Your task to perform on an android device: Play the last video I watched on Youtube Image 0: 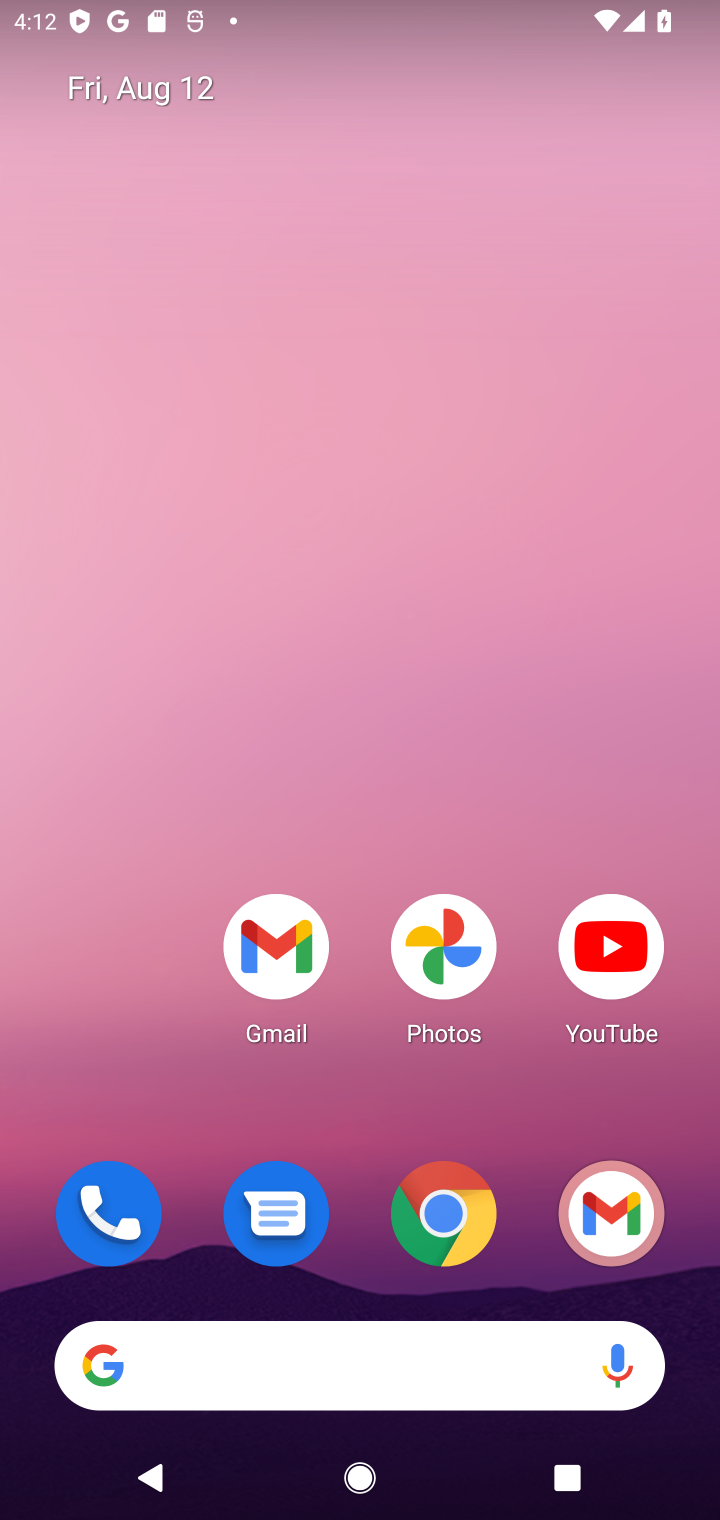
Step 0: drag from (543, 1104) to (633, 30)
Your task to perform on an android device: Play the last video I watched on Youtube Image 1: 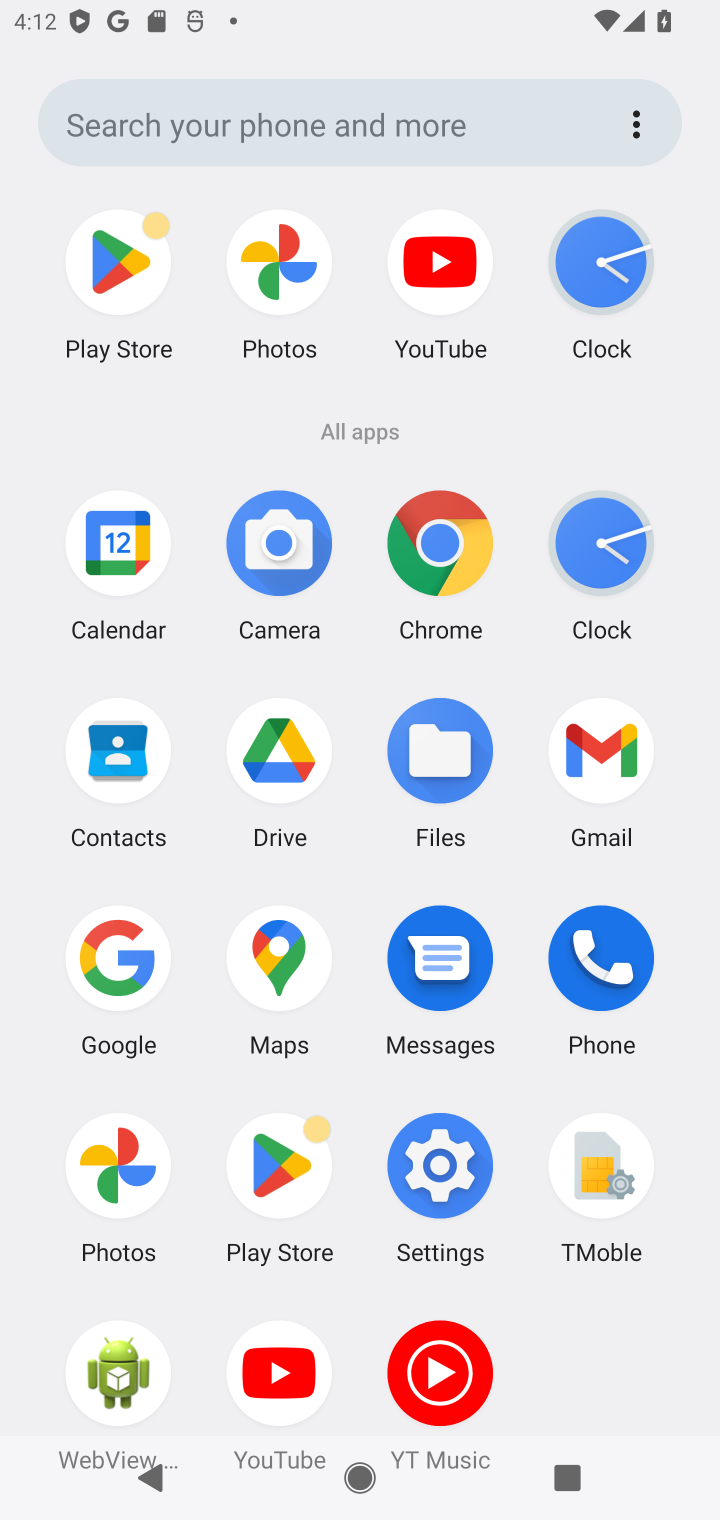
Step 1: click (288, 1367)
Your task to perform on an android device: Play the last video I watched on Youtube Image 2: 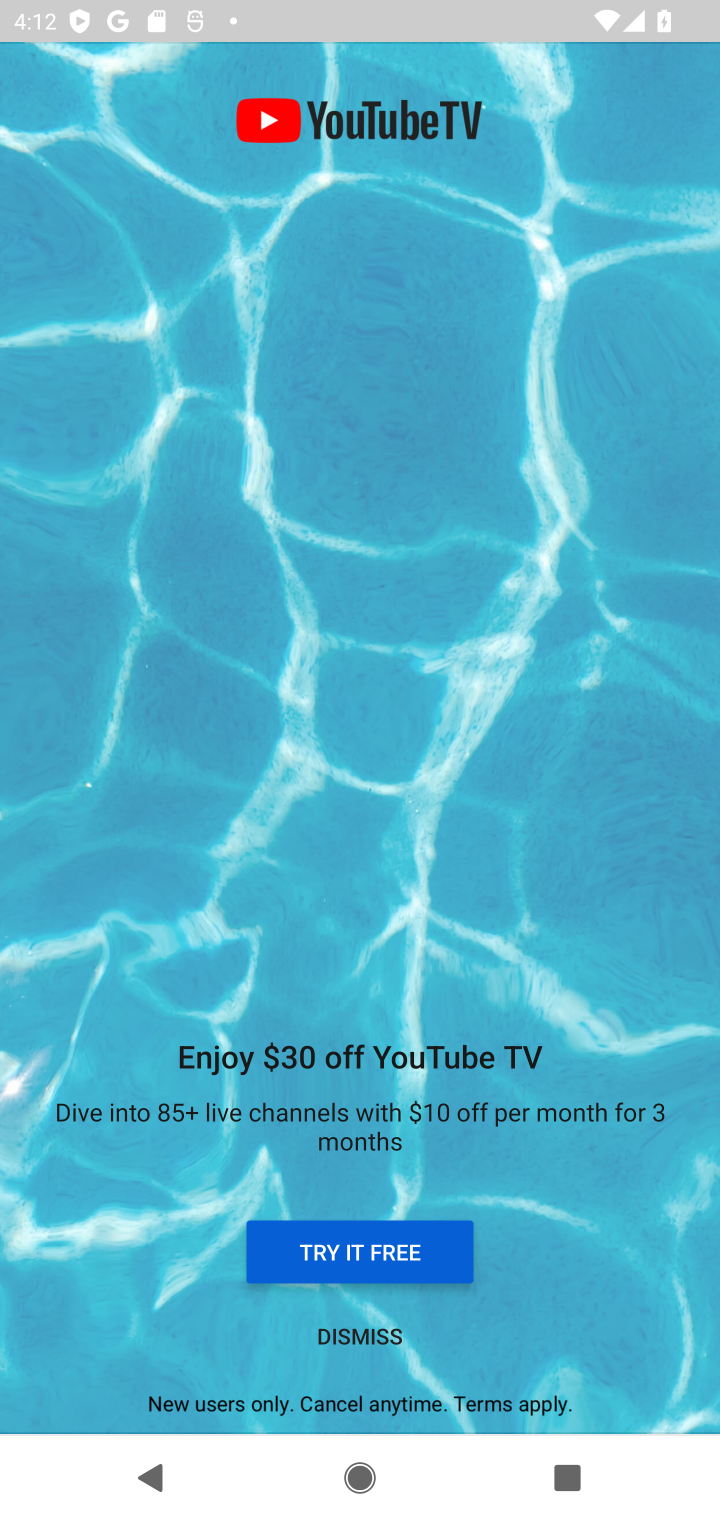
Step 2: click (372, 1330)
Your task to perform on an android device: Play the last video I watched on Youtube Image 3: 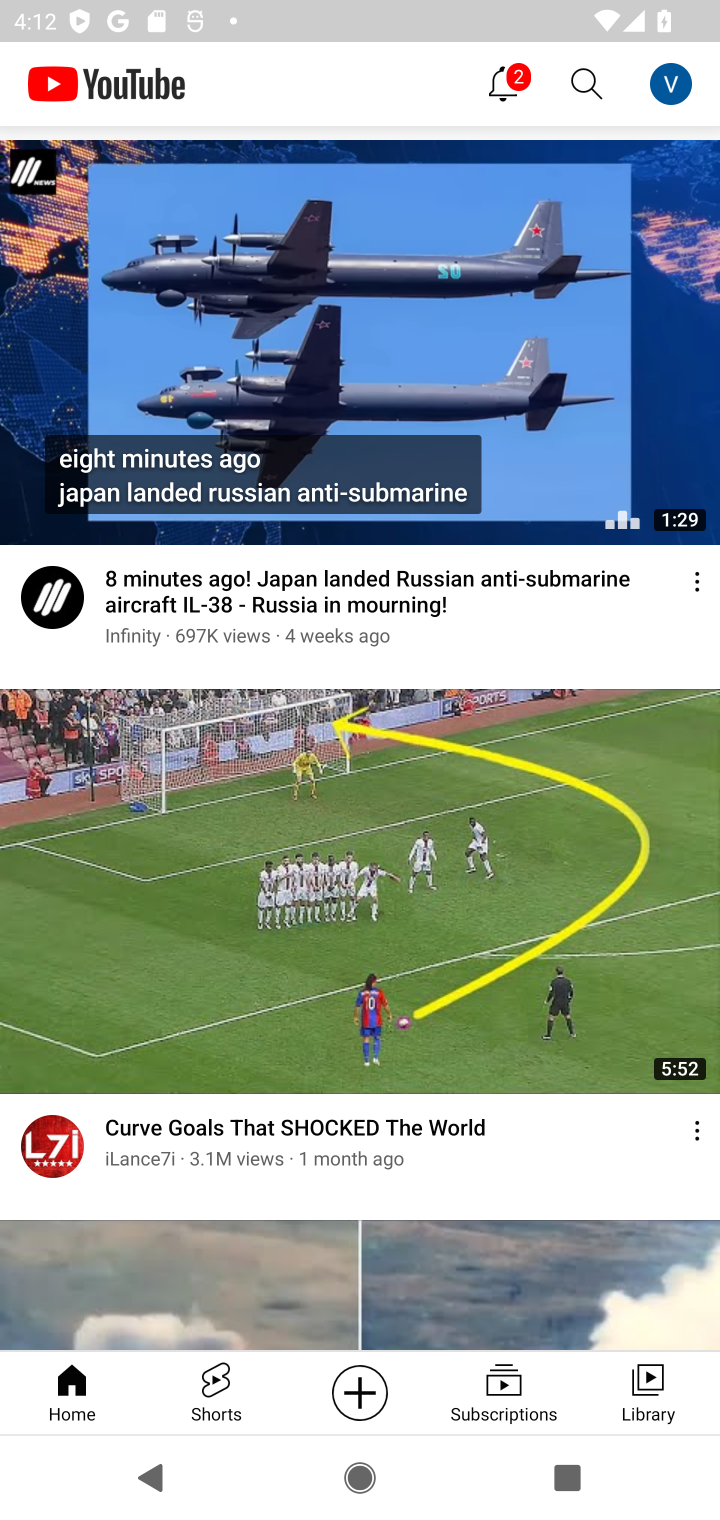
Step 3: click (670, 1378)
Your task to perform on an android device: Play the last video I watched on Youtube Image 4: 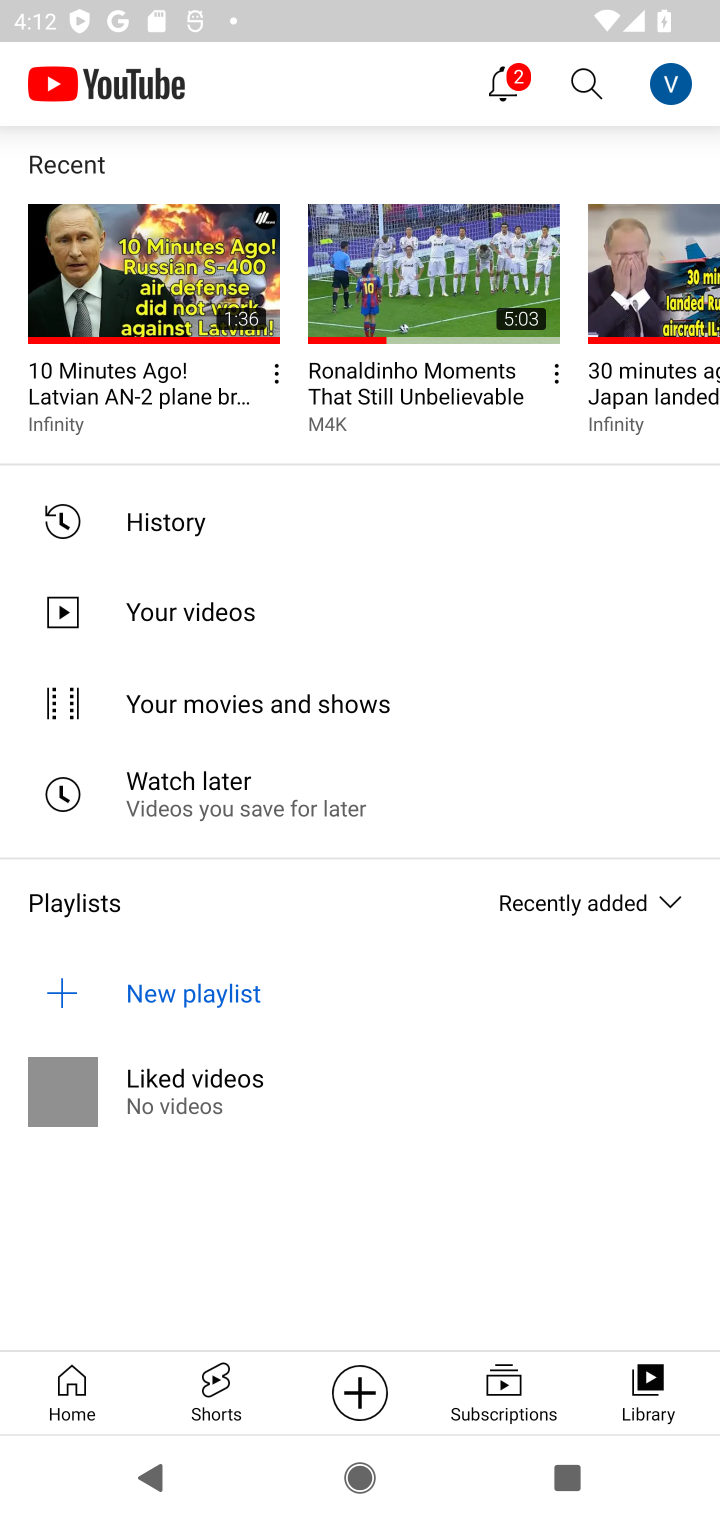
Step 4: click (166, 282)
Your task to perform on an android device: Play the last video I watched on Youtube Image 5: 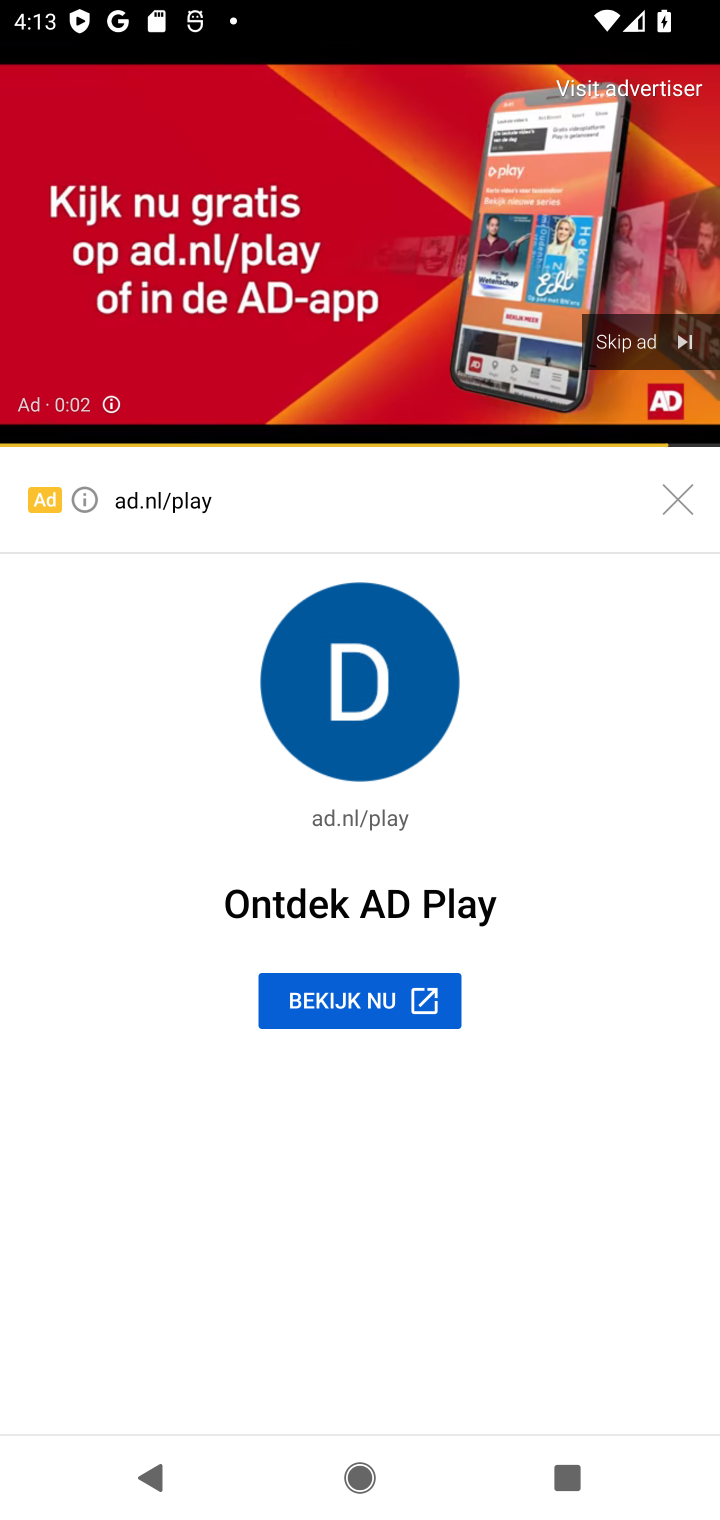
Step 5: click (614, 332)
Your task to perform on an android device: Play the last video I watched on Youtube Image 6: 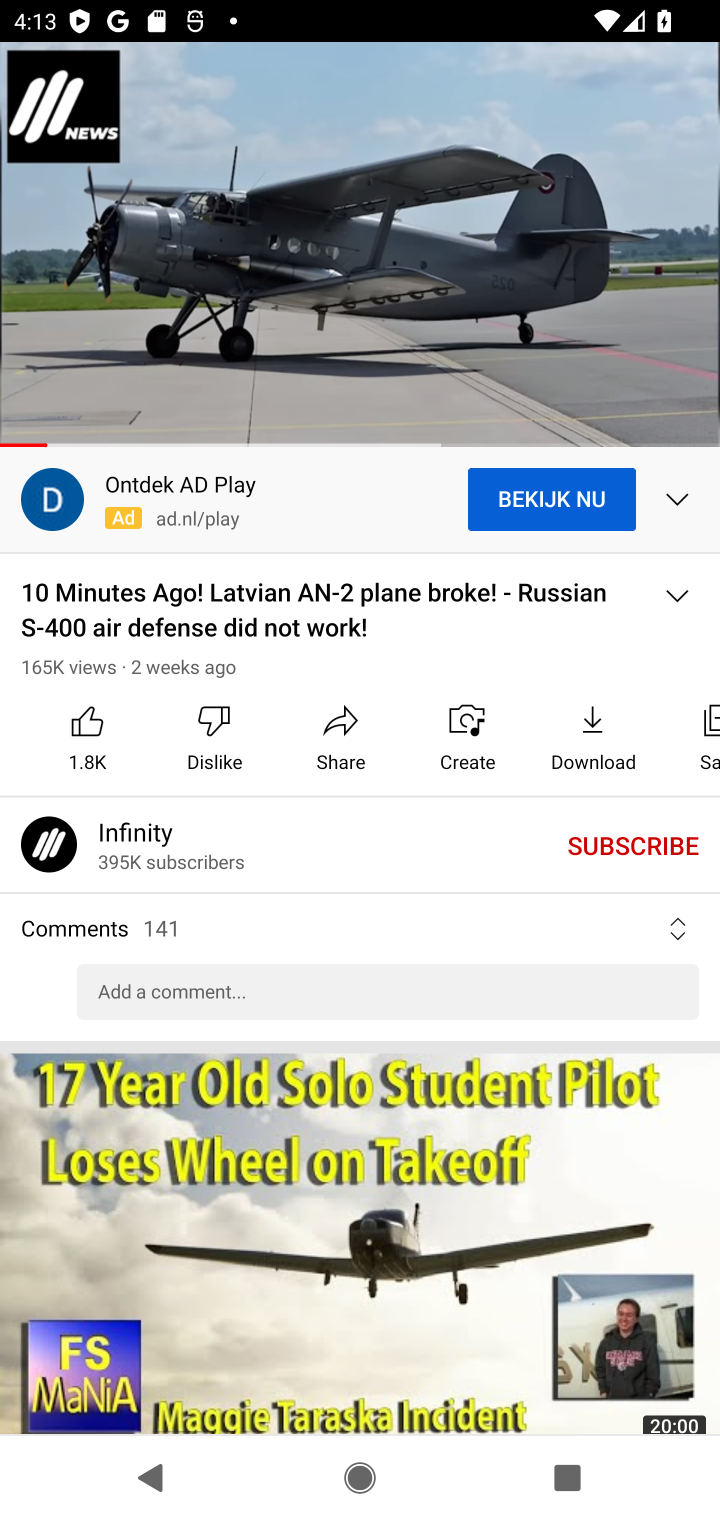
Step 6: task complete